Your task to perform on an android device: empty trash in google photos Image 0: 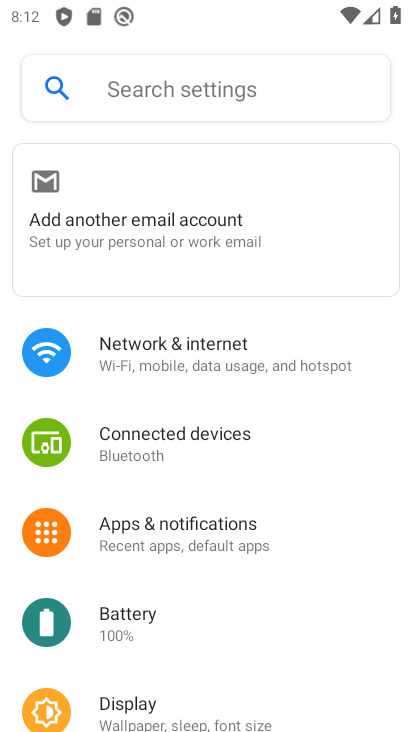
Step 0: press home button
Your task to perform on an android device: empty trash in google photos Image 1: 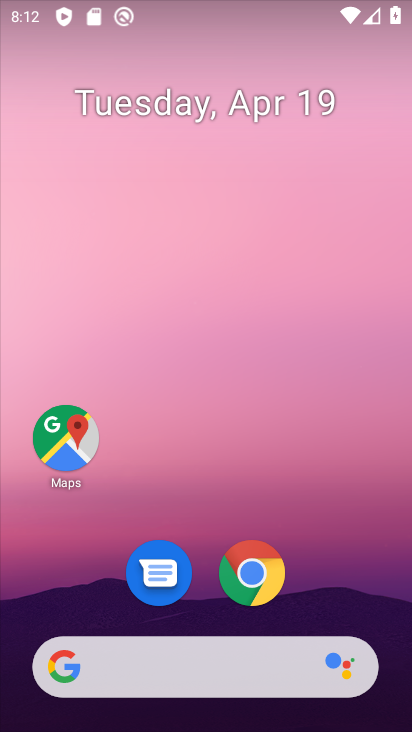
Step 1: drag from (326, 555) to (320, 96)
Your task to perform on an android device: empty trash in google photos Image 2: 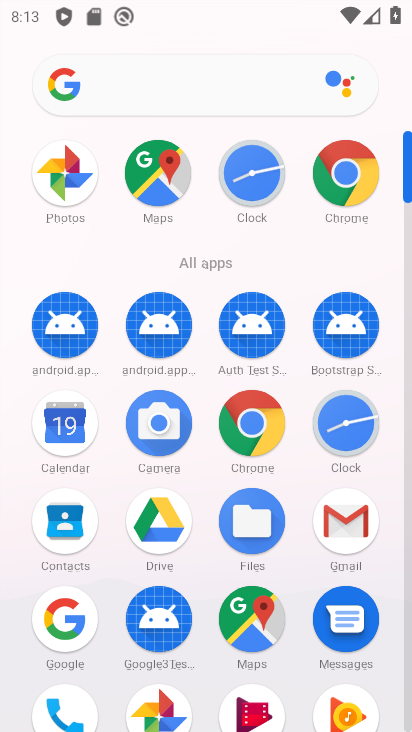
Step 2: click (166, 691)
Your task to perform on an android device: empty trash in google photos Image 3: 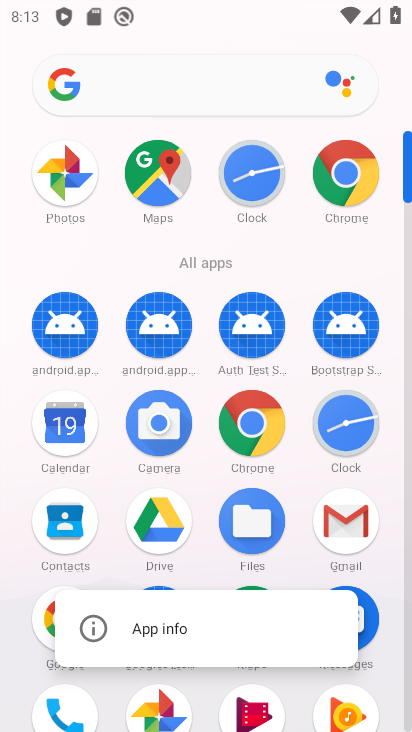
Step 3: click (166, 691)
Your task to perform on an android device: empty trash in google photos Image 4: 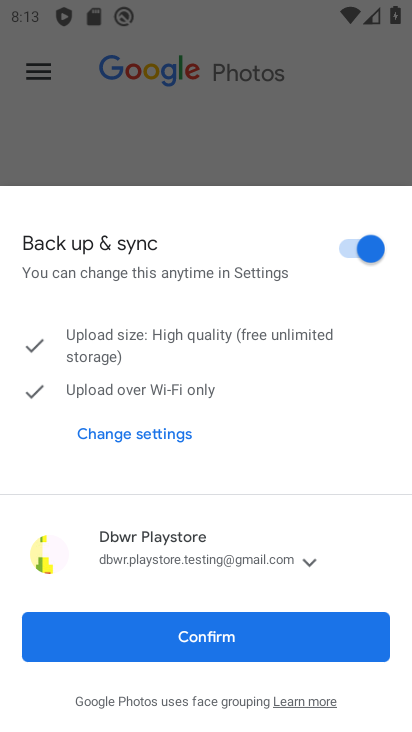
Step 4: click (211, 640)
Your task to perform on an android device: empty trash in google photos Image 5: 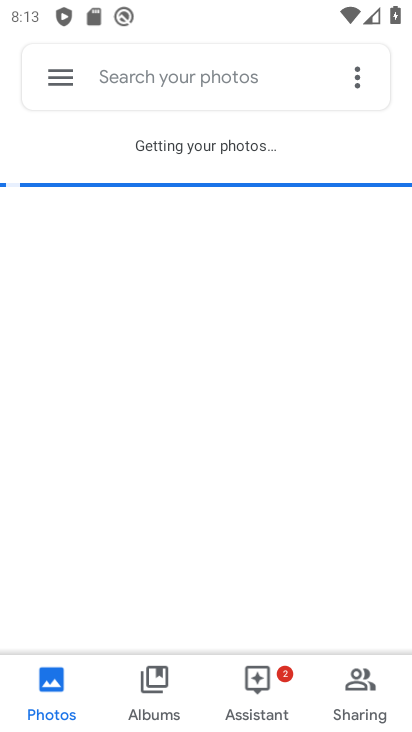
Step 5: click (61, 78)
Your task to perform on an android device: empty trash in google photos Image 6: 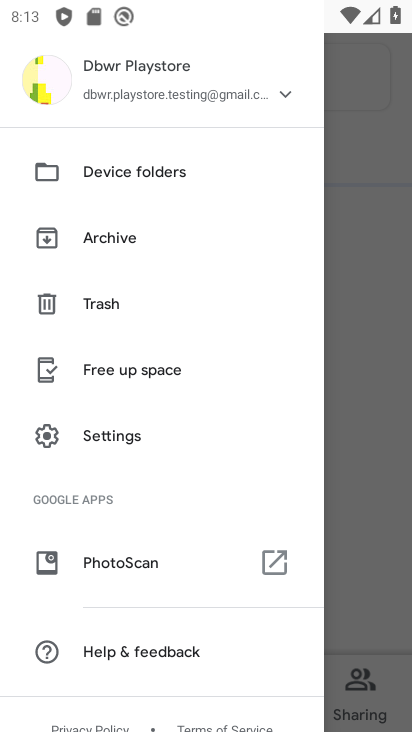
Step 6: click (112, 310)
Your task to perform on an android device: empty trash in google photos Image 7: 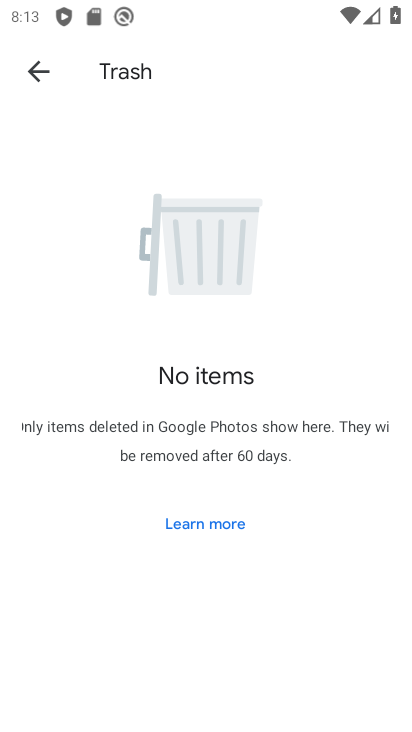
Step 7: task complete